Your task to perform on an android device: check google app version Image 0: 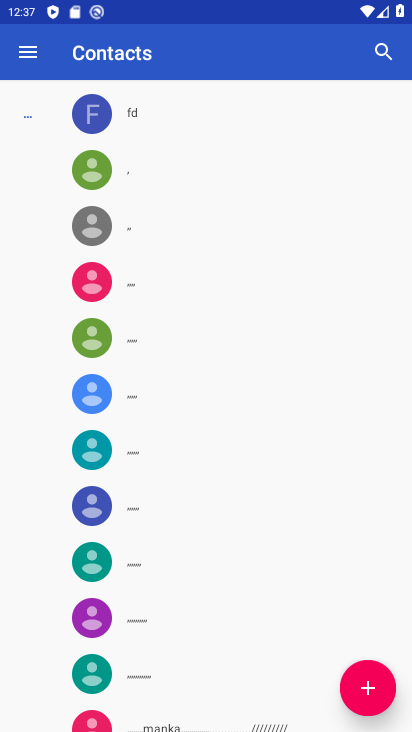
Step 0: press home button
Your task to perform on an android device: check google app version Image 1: 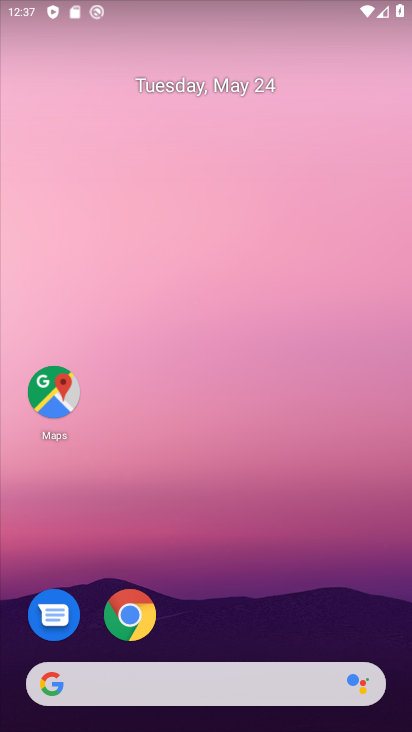
Step 1: drag from (214, 638) to (239, 127)
Your task to perform on an android device: check google app version Image 2: 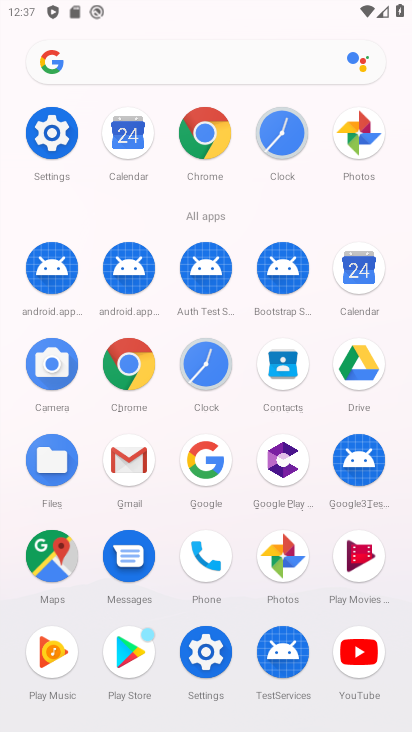
Step 2: click (203, 456)
Your task to perform on an android device: check google app version Image 3: 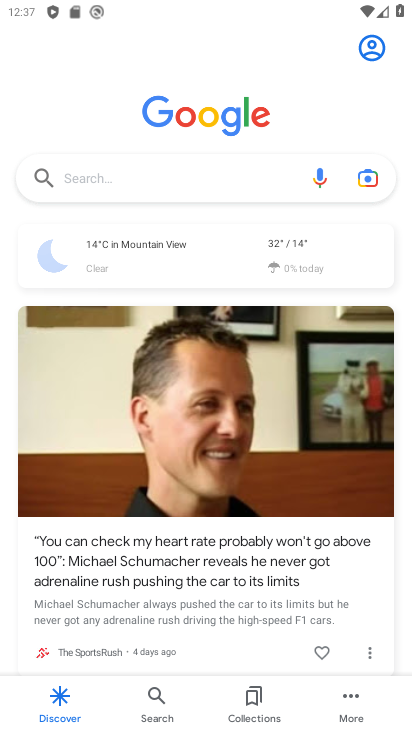
Step 3: click (357, 691)
Your task to perform on an android device: check google app version Image 4: 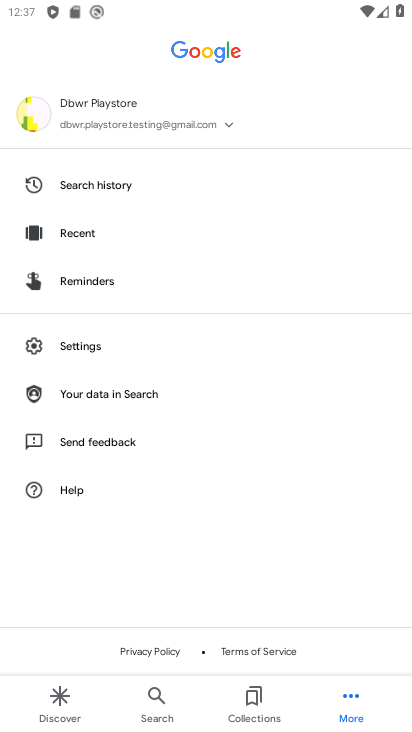
Step 4: click (103, 341)
Your task to perform on an android device: check google app version Image 5: 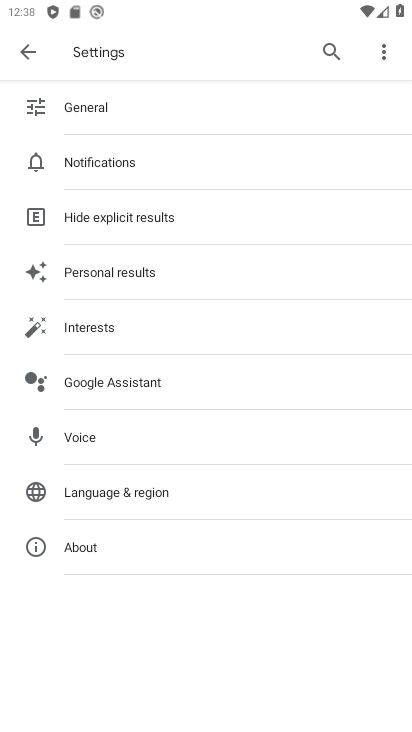
Step 5: click (99, 556)
Your task to perform on an android device: check google app version Image 6: 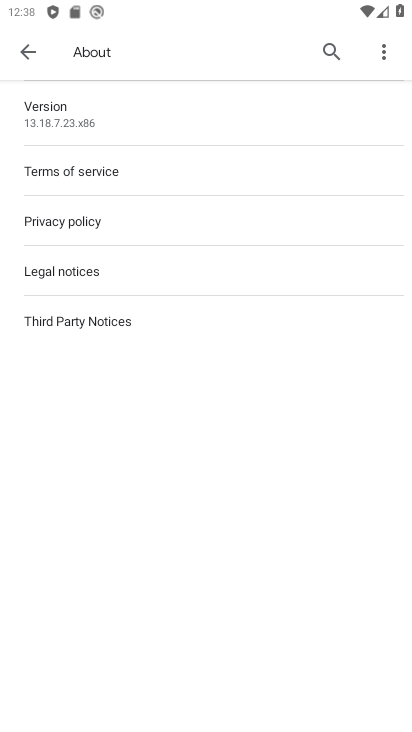
Step 6: task complete